Your task to perform on an android device: turn off sleep mode Image 0: 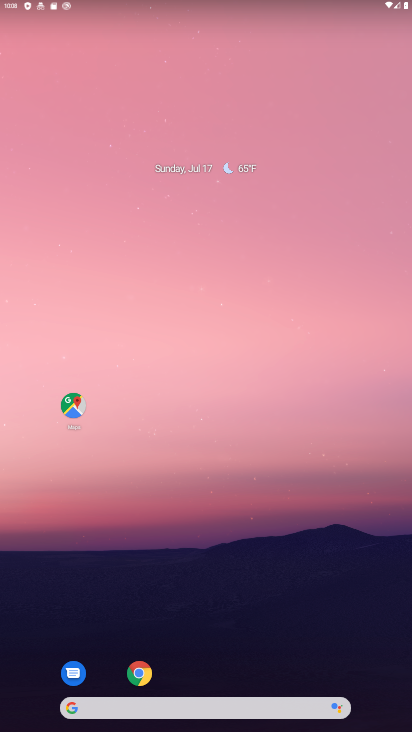
Step 0: drag from (217, 686) to (217, 173)
Your task to perform on an android device: turn off sleep mode Image 1: 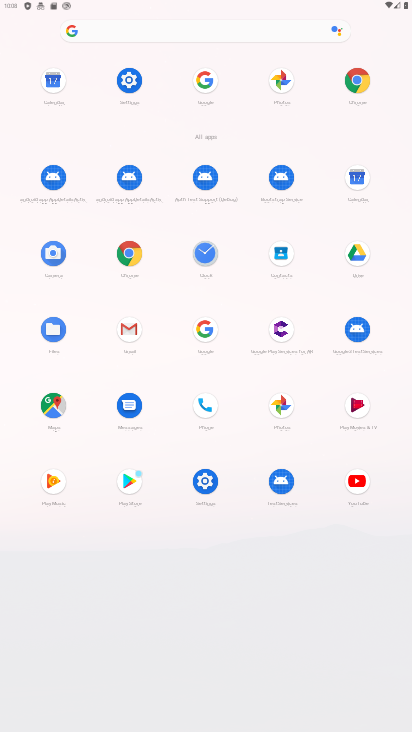
Step 1: click (201, 470)
Your task to perform on an android device: turn off sleep mode Image 2: 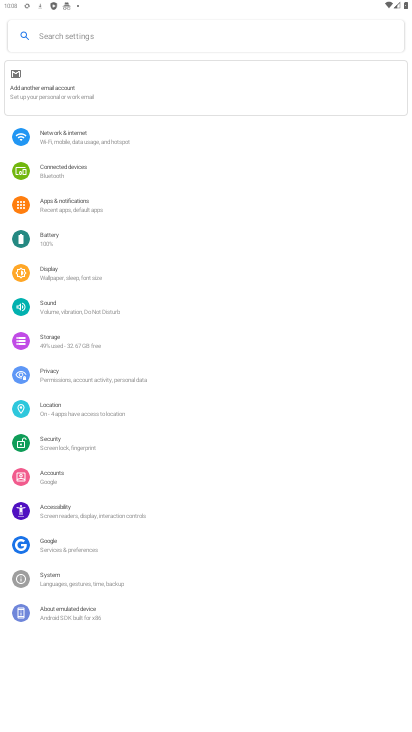
Step 2: click (93, 274)
Your task to perform on an android device: turn off sleep mode Image 3: 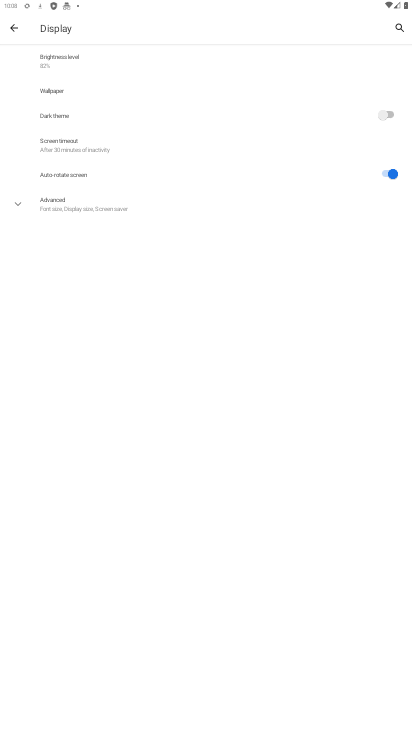
Step 3: click (96, 202)
Your task to perform on an android device: turn off sleep mode Image 4: 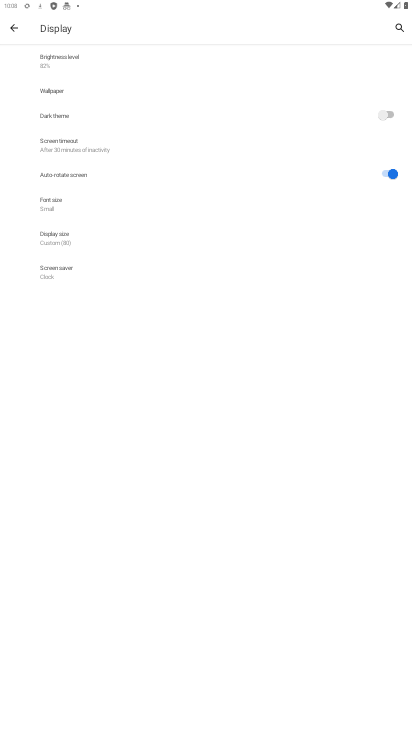
Step 4: task complete